Your task to perform on an android device: Search for Mexican restaurants on Maps Image 0: 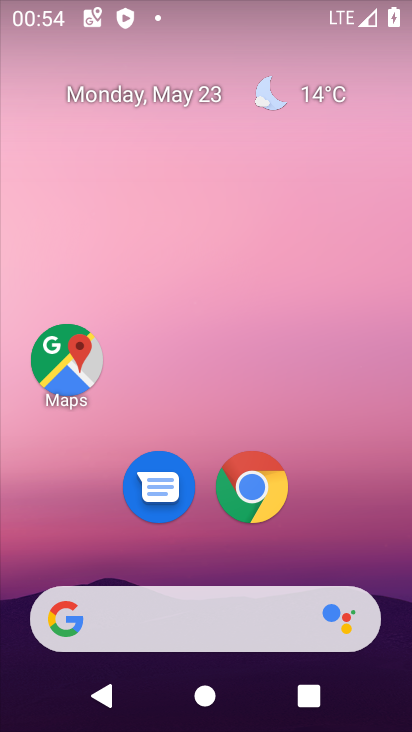
Step 0: click (67, 358)
Your task to perform on an android device: Search for Mexican restaurants on Maps Image 1: 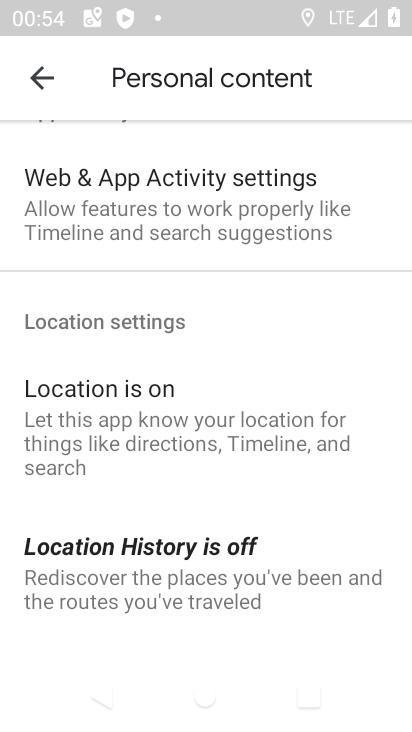
Step 1: press back button
Your task to perform on an android device: Search for Mexican restaurants on Maps Image 2: 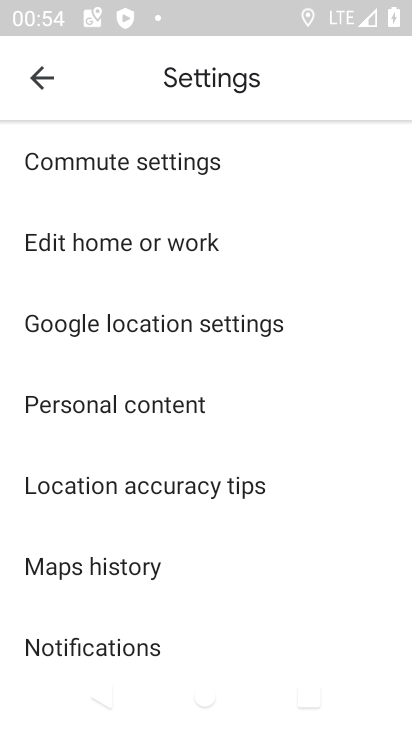
Step 2: press back button
Your task to perform on an android device: Search for Mexican restaurants on Maps Image 3: 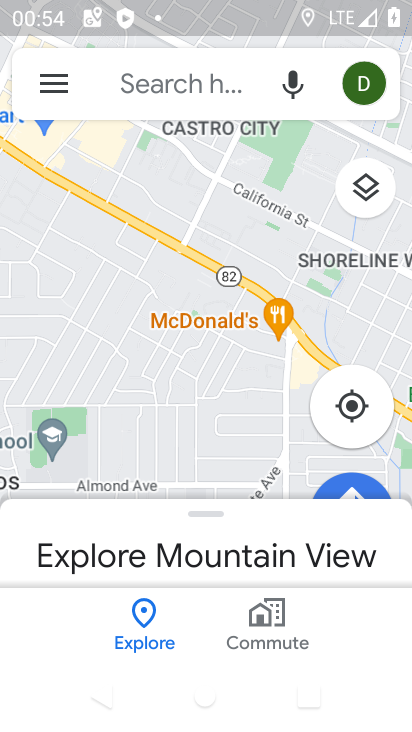
Step 3: click (49, 87)
Your task to perform on an android device: Search for Mexican restaurants on Maps Image 4: 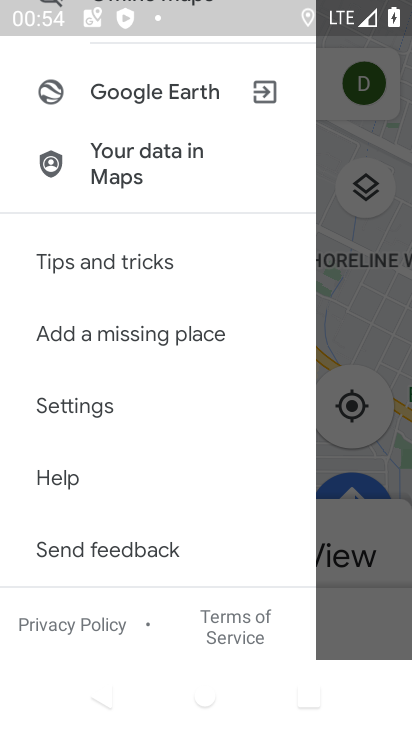
Step 4: drag from (290, 199) to (257, 460)
Your task to perform on an android device: Search for Mexican restaurants on Maps Image 5: 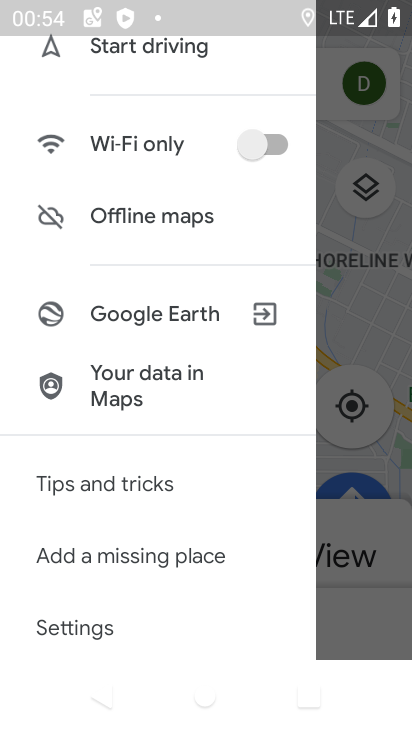
Step 5: click (391, 324)
Your task to perform on an android device: Search for Mexican restaurants on Maps Image 6: 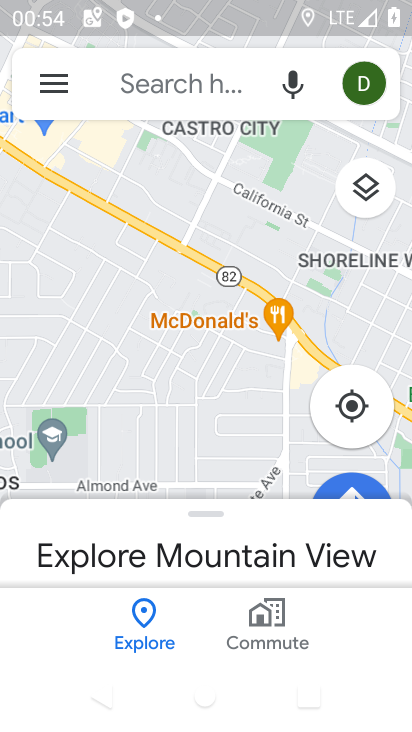
Step 6: click (140, 77)
Your task to perform on an android device: Search for Mexican restaurants on Maps Image 7: 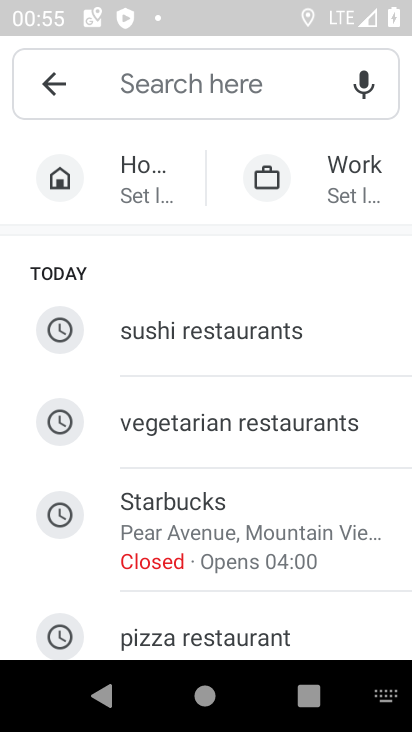
Step 7: type "mexican restaurants"
Your task to perform on an android device: Search for Mexican restaurants on Maps Image 8: 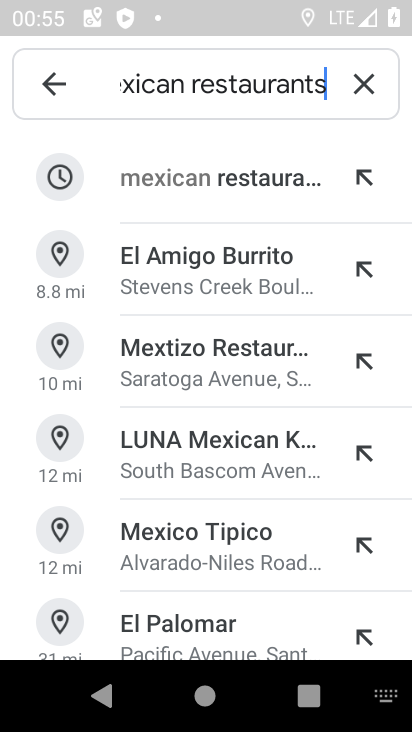
Step 8: click (204, 179)
Your task to perform on an android device: Search for Mexican restaurants on Maps Image 9: 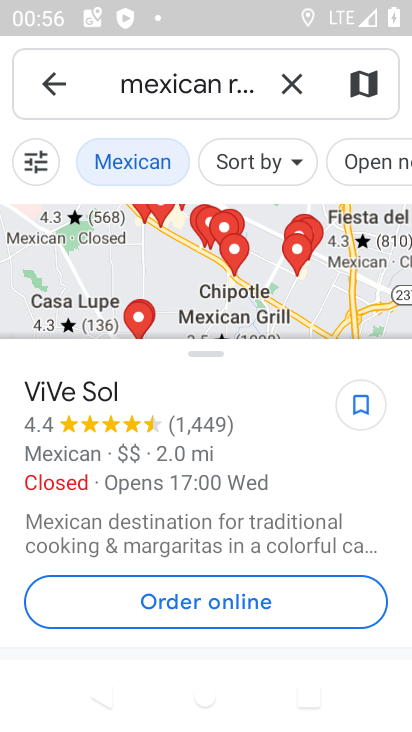
Step 9: task complete